Your task to perform on an android device: Open Google Chrome Image 0: 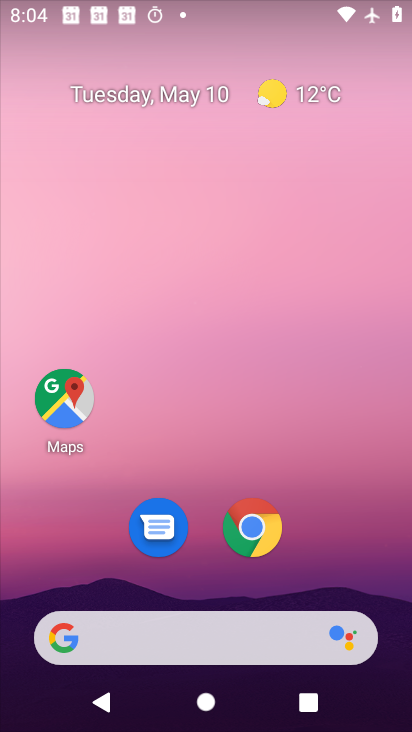
Step 0: click (269, 530)
Your task to perform on an android device: Open Google Chrome Image 1: 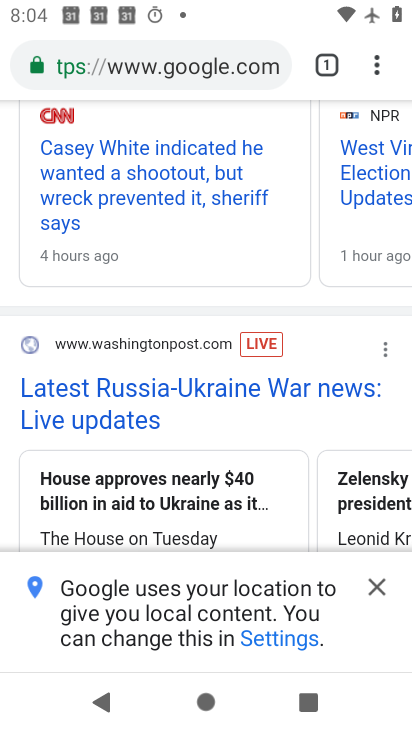
Step 1: task complete